Your task to perform on an android device: turn off javascript in the chrome app Image 0: 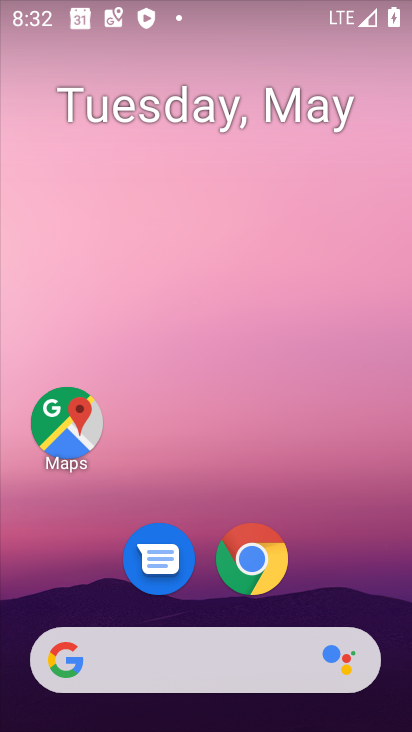
Step 0: click (246, 573)
Your task to perform on an android device: turn off javascript in the chrome app Image 1: 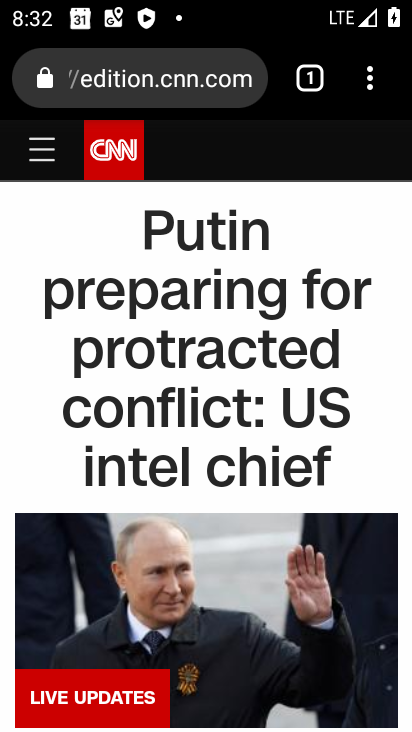
Step 1: drag from (369, 71) to (84, 617)
Your task to perform on an android device: turn off javascript in the chrome app Image 2: 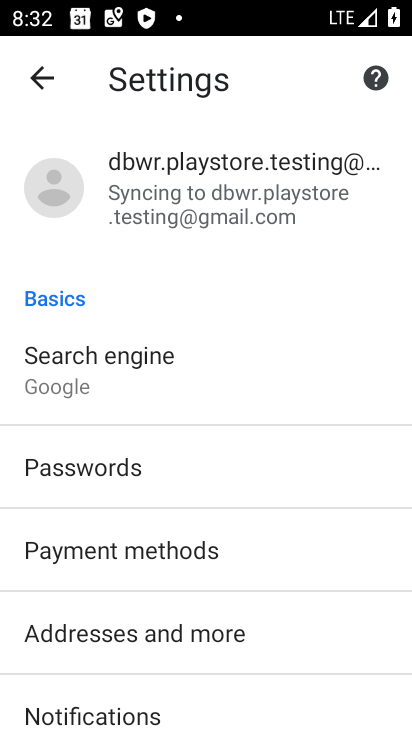
Step 2: drag from (91, 700) to (250, 164)
Your task to perform on an android device: turn off javascript in the chrome app Image 3: 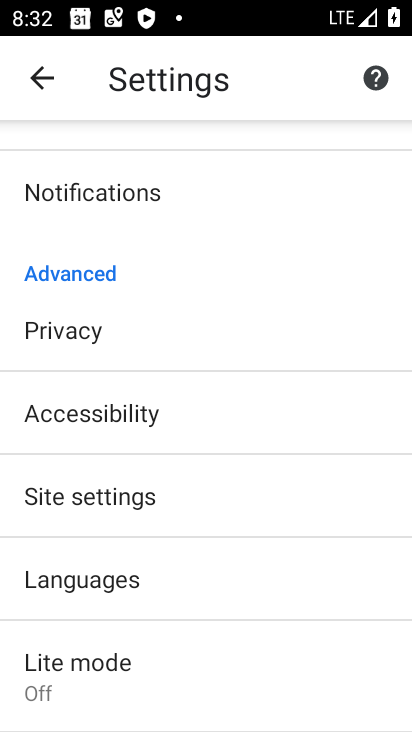
Step 3: click (89, 671)
Your task to perform on an android device: turn off javascript in the chrome app Image 4: 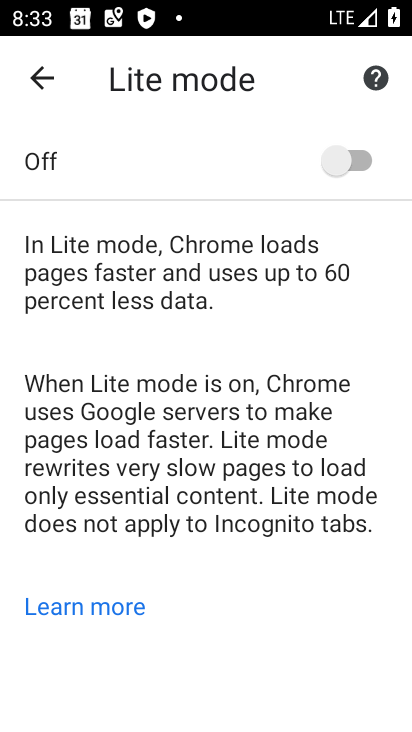
Step 4: task complete